Your task to perform on an android device: change alarm snooze length Image 0: 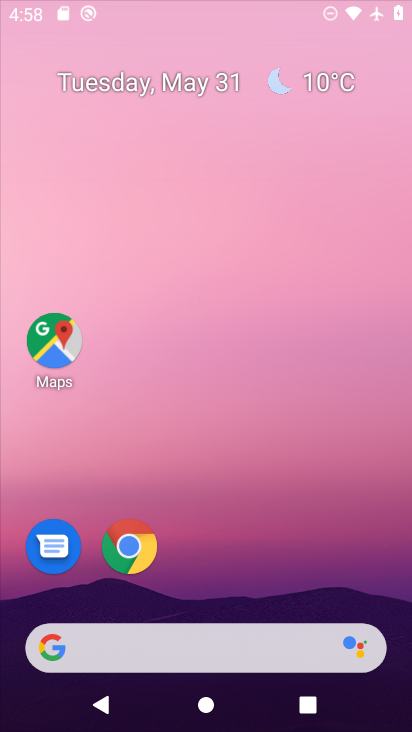
Step 0: drag from (290, 429) to (170, 86)
Your task to perform on an android device: change alarm snooze length Image 1: 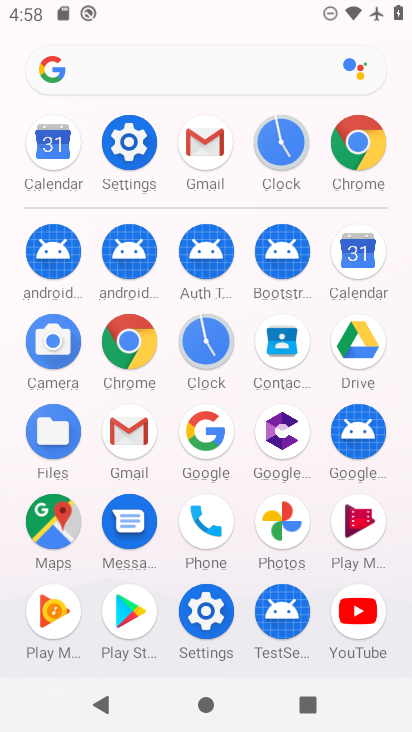
Step 1: click (295, 144)
Your task to perform on an android device: change alarm snooze length Image 2: 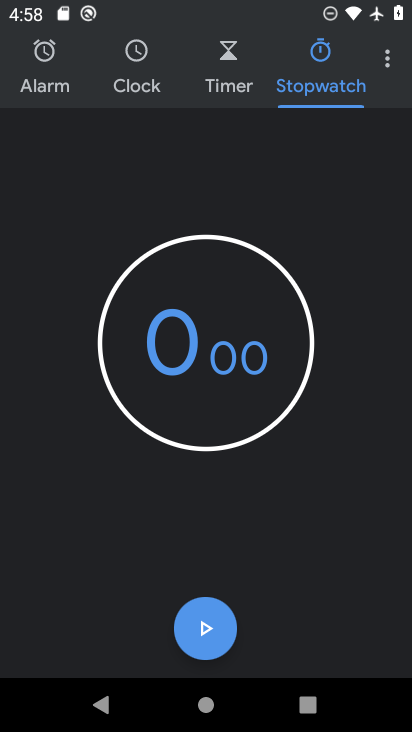
Step 2: click (385, 68)
Your task to perform on an android device: change alarm snooze length Image 3: 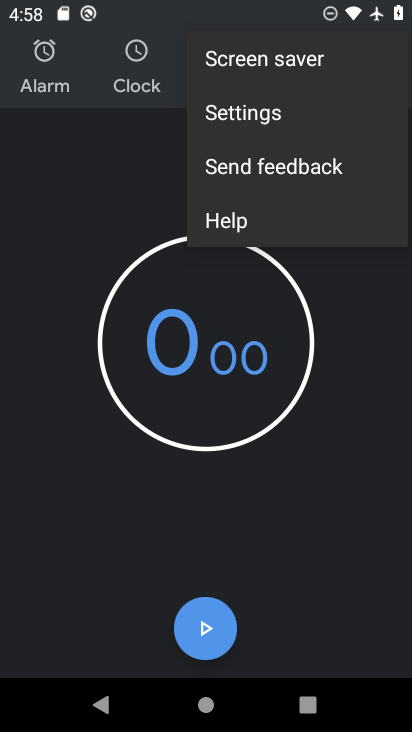
Step 3: click (326, 108)
Your task to perform on an android device: change alarm snooze length Image 4: 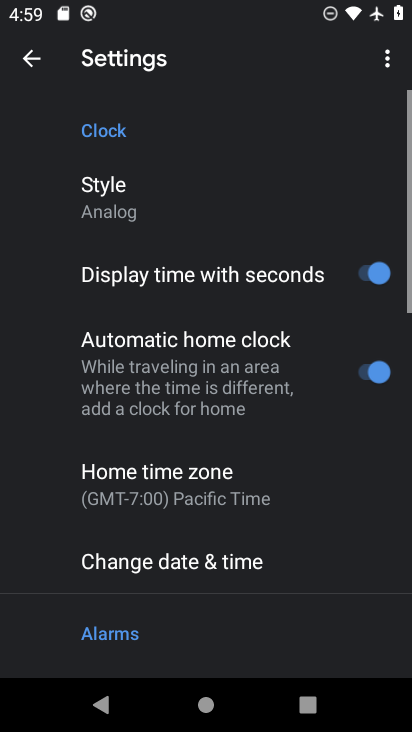
Step 4: drag from (246, 519) to (220, 36)
Your task to perform on an android device: change alarm snooze length Image 5: 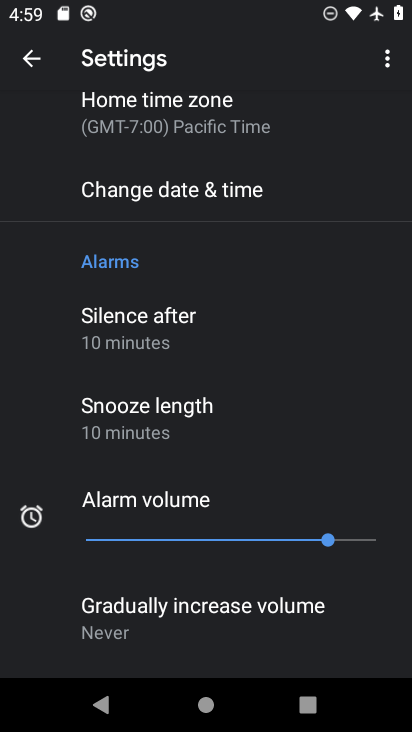
Step 5: click (193, 396)
Your task to perform on an android device: change alarm snooze length Image 6: 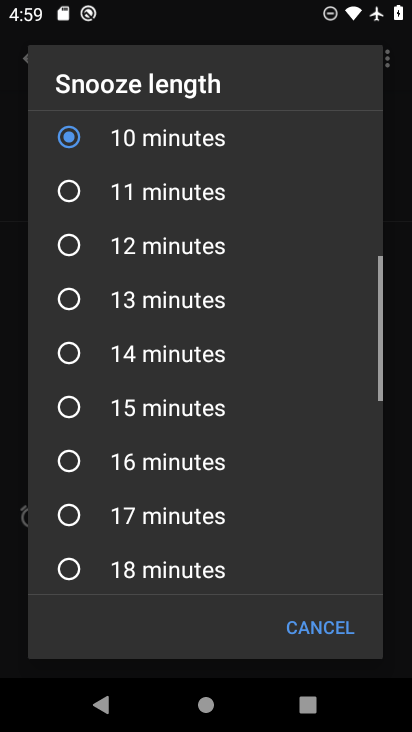
Step 6: click (162, 249)
Your task to perform on an android device: change alarm snooze length Image 7: 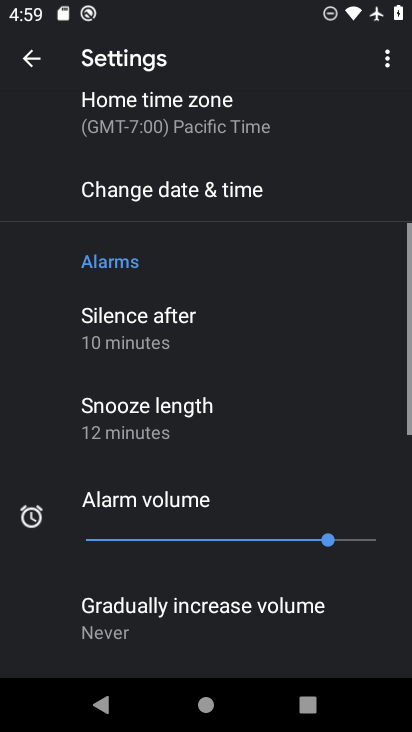
Step 7: task complete